Your task to perform on an android device: choose inbox layout in the gmail app Image 0: 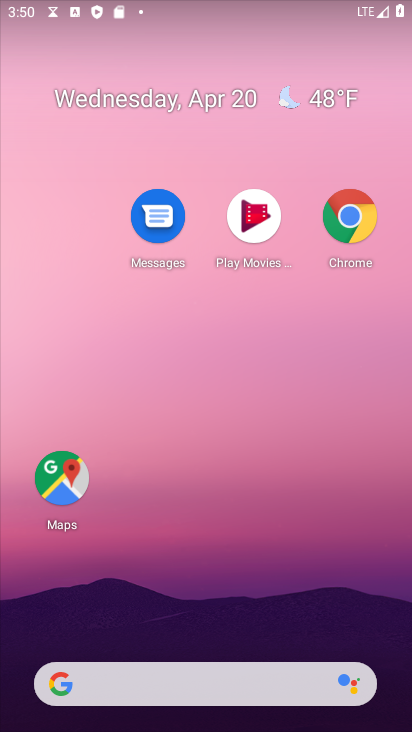
Step 0: drag from (295, 603) to (291, 75)
Your task to perform on an android device: choose inbox layout in the gmail app Image 1: 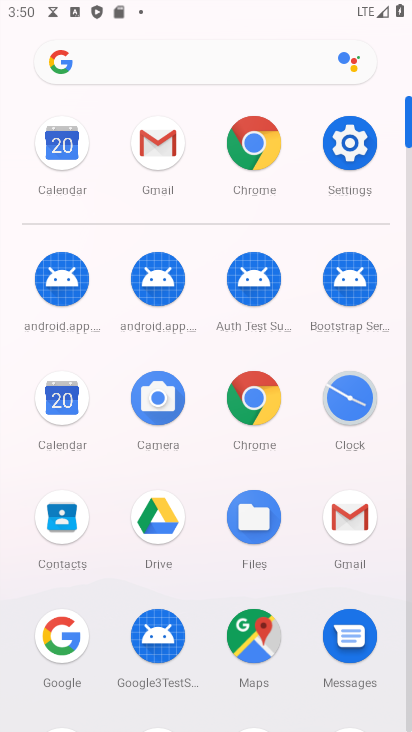
Step 1: click (352, 518)
Your task to perform on an android device: choose inbox layout in the gmail app Image 2: 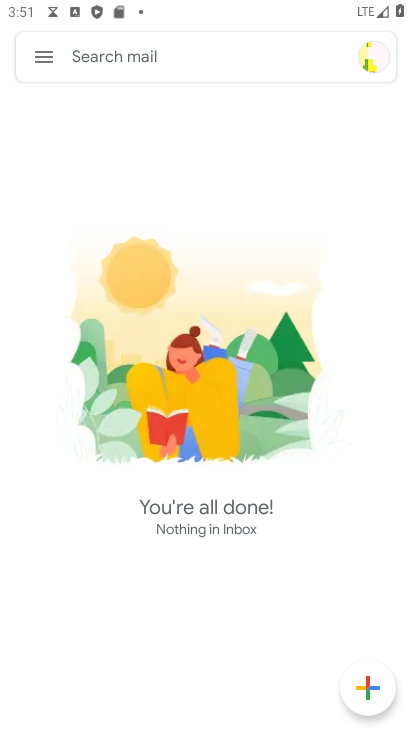
Step 2: click (37, 65)
Your task to perform on an android device: choose inbox layout in the gmail app Image 3: 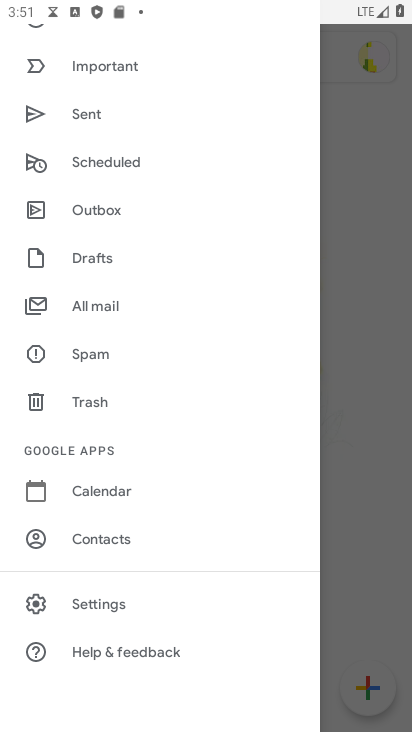
Step 3: click (116, 612)
Your task to perform on an android device: choose inbox layout in the gmail app Image 4: 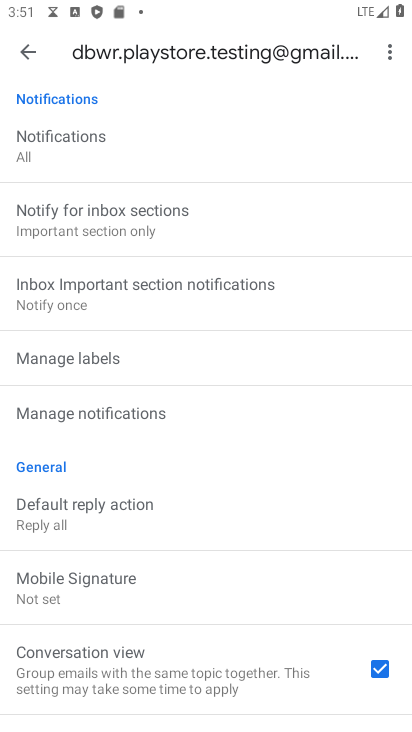
Step 4: drag from (155, 173) to (176, 590)
Your task to perform on an android device: choose inbox layout in the gmail app Image 5: 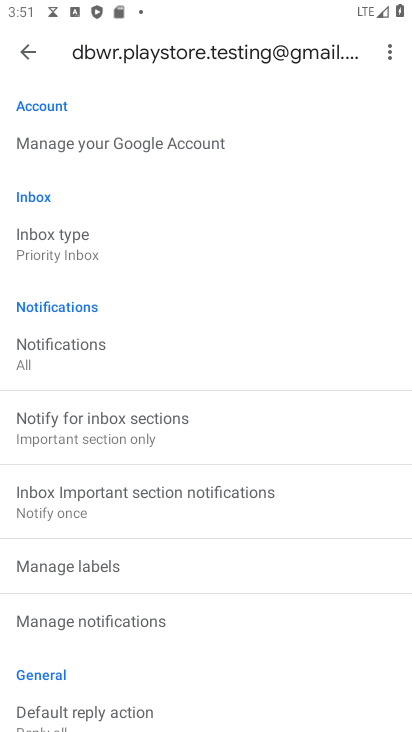
Step 5: click (88, 256)
Your task to perform on an android device: choose inbox layout in the gmail app Image 6: 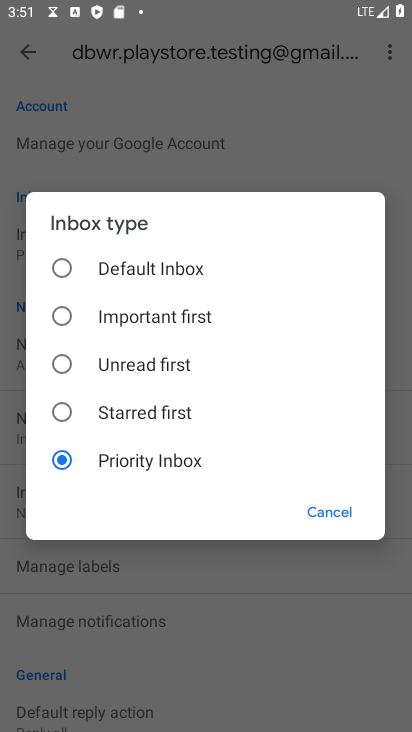
Step 6: click (135, 356)
Your task to perform on an android device: choose inbox layout in the gmail app Image 7: 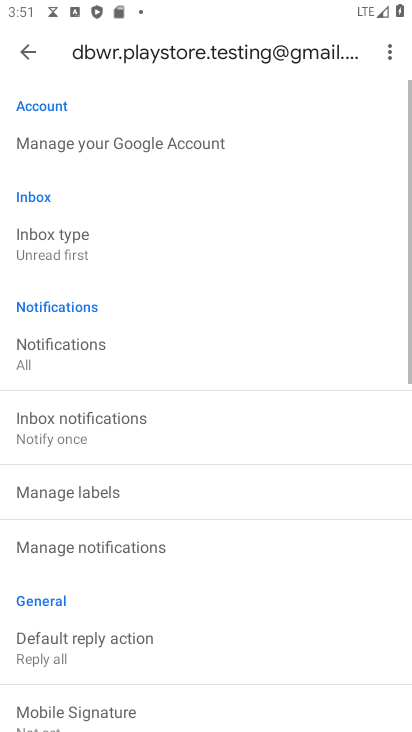
Step 7: task complete